Your task to perform on an android device: Go to location settings Image 0: 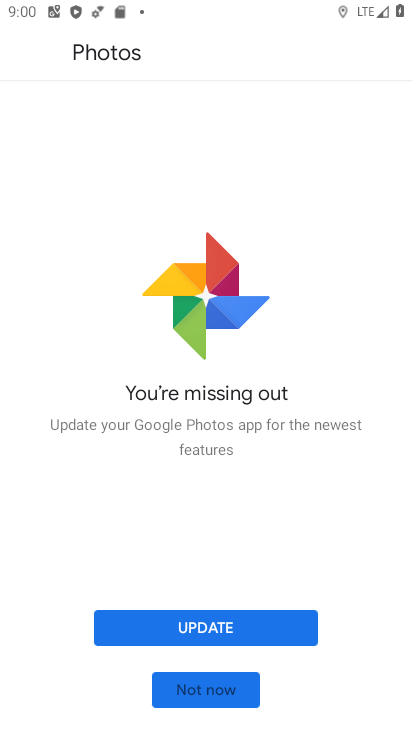
Step 0: press home button
Your task to perform on an android device: Go to location settings Image 1: 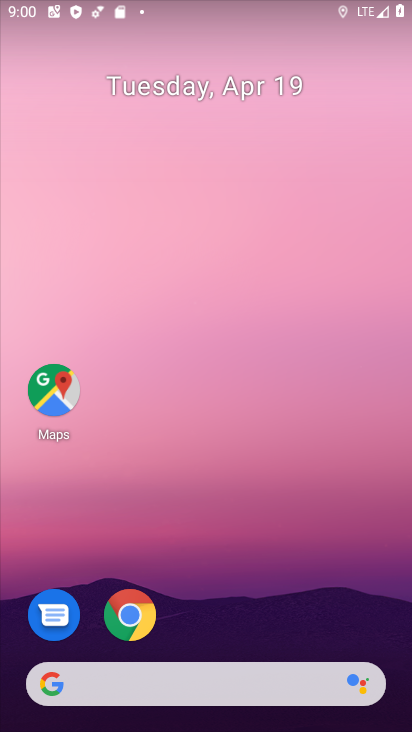
Step 1: drag from (300, 649) to (265, 13)
Your task to perform on an android device: Go to location settings Image 2: 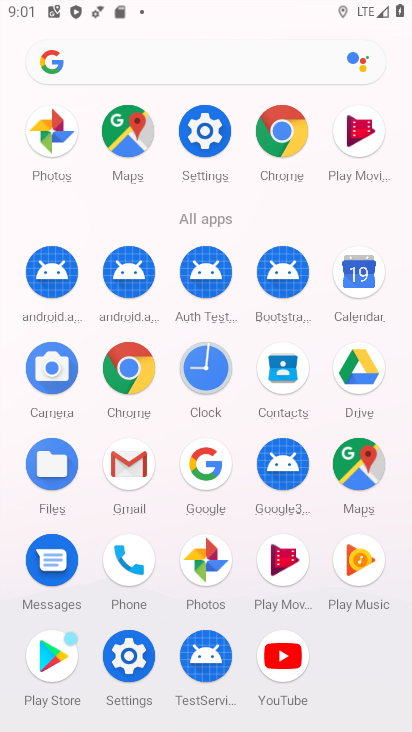
Step 2: click (219, 133)
Your task to perform on an android device: Go to location settings Image 3: 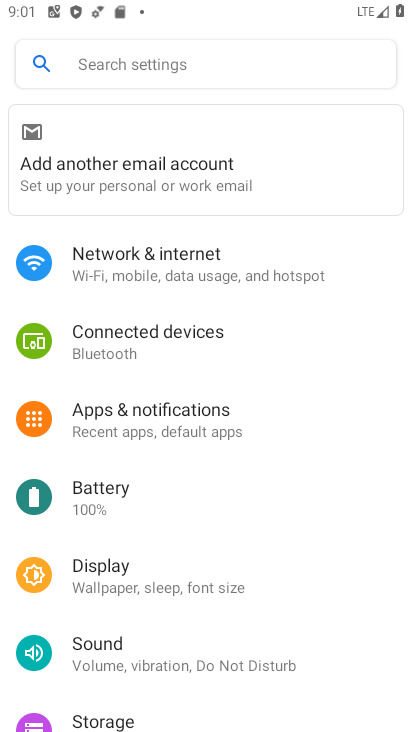
Step 3: drag from (131, 630) to (227, 49)
Your task to perform on an android device: Go to location settings Image 4: 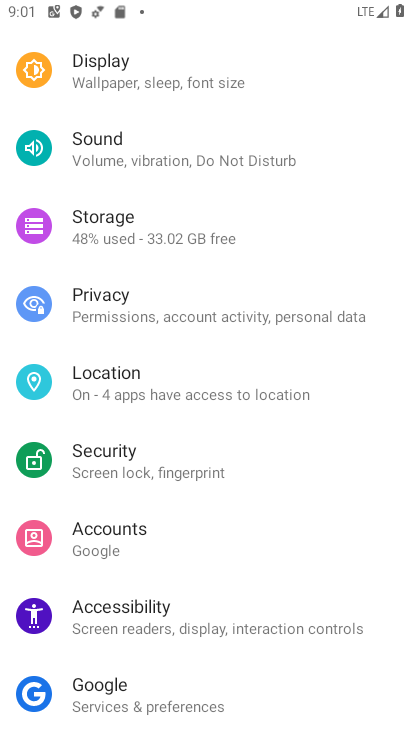
Step 4: click (136, 406)
Your task to perform on an android device: Go to location settings Image 5: 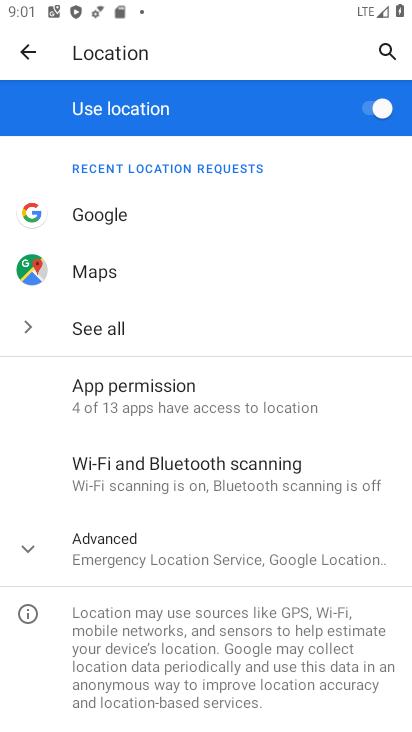
Step 5: task complete